Your task to perform on an android device: open app "Spotify: Music and Podcasts" (install if not already installed) Image 0: 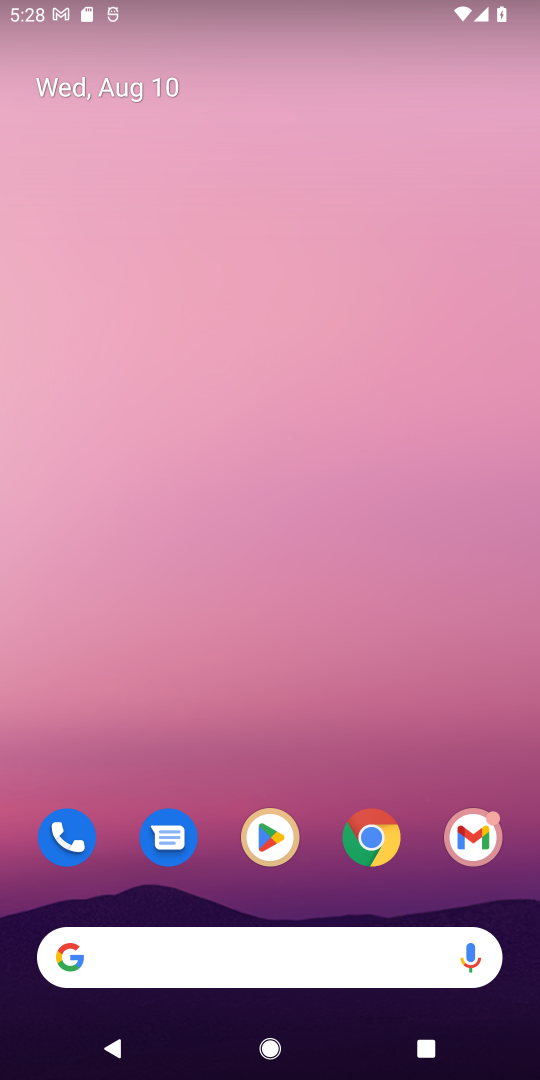
Step 0: click (269, 827)
Your task to perform on an android device: open app "Spotify: Music and Podcasts" (install if not already installed) Image 1: 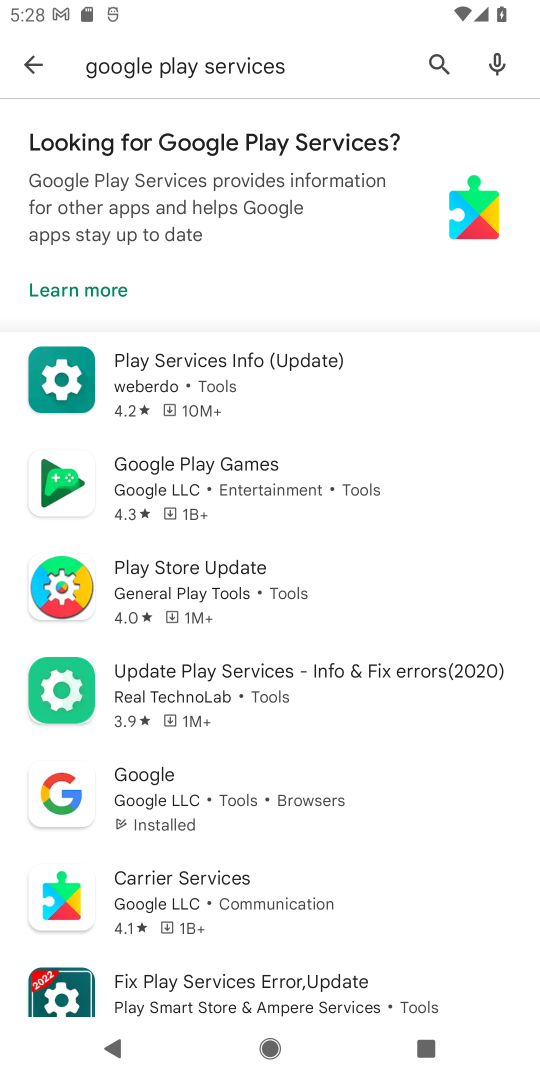
Step 1: click (441, 60)
Your task to perform on an android device: open app "Spotify: Music and Podcasts" (install if not already installed) Image 2: 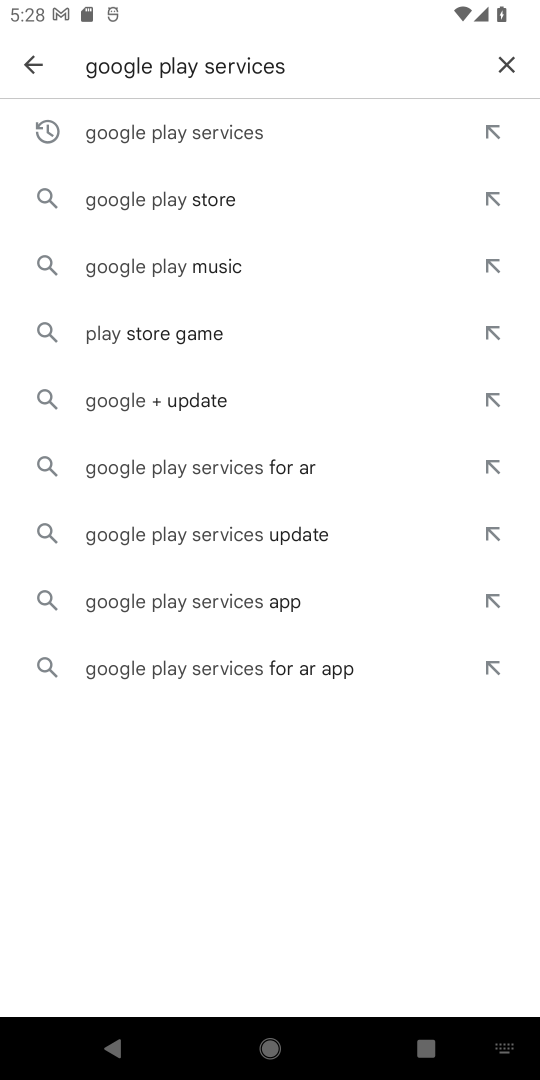
Step 2: click (516, 72)
Your task to perform on an android device: open app "Spotify: Music and Podcasts" (install if not already installed) Image 3: 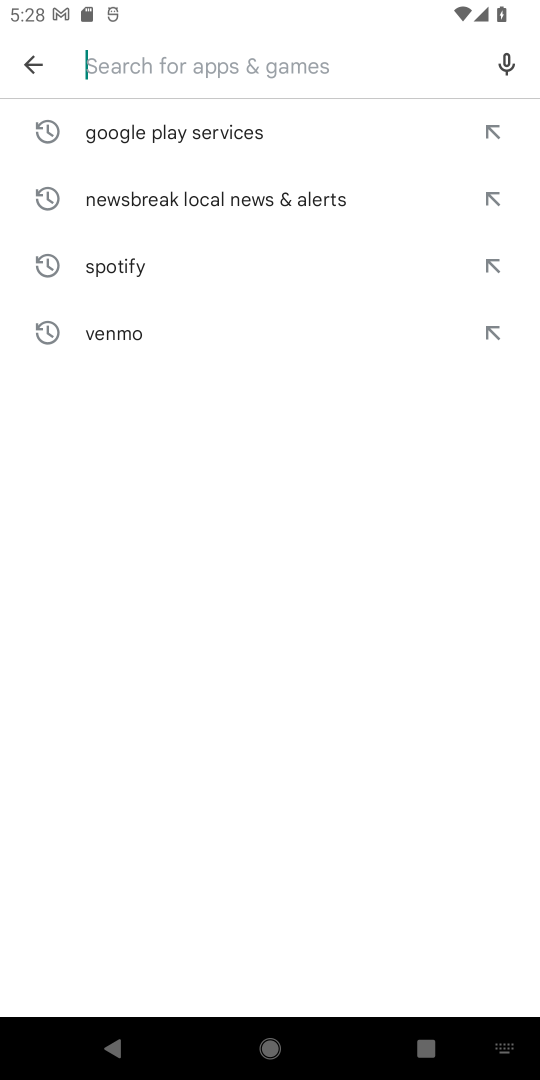
Step 3: type "Spotify: Music and Podcasts"
Your task to perform on an android device: open app "Spotify: Music and Podcasts" (install if not already installed) Image 4: 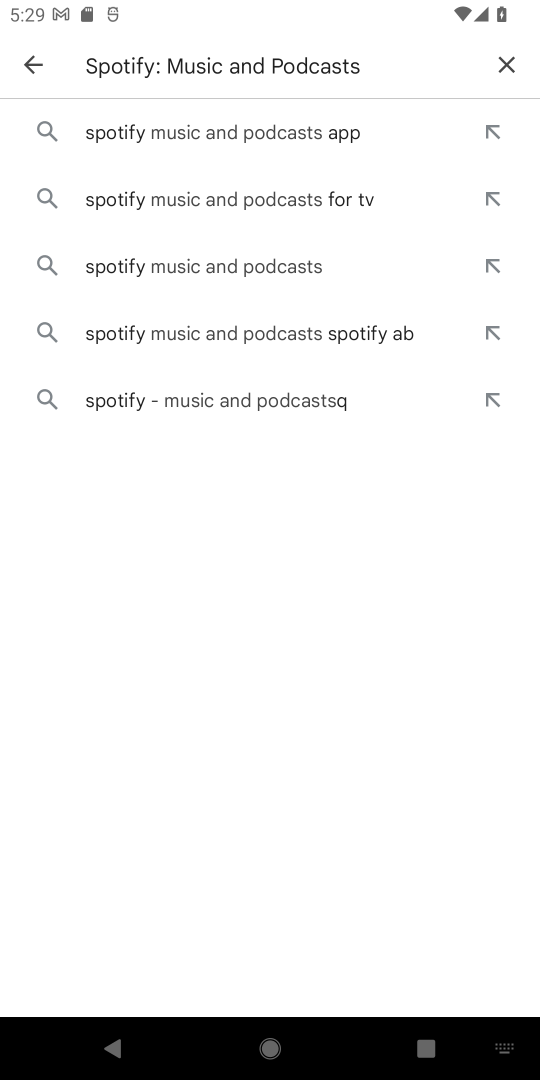
Step 4: click (239, 131)
Your task to perform on an android device: open app "Spotify: Music and Podcasts" (install if not already installed) Image 5: 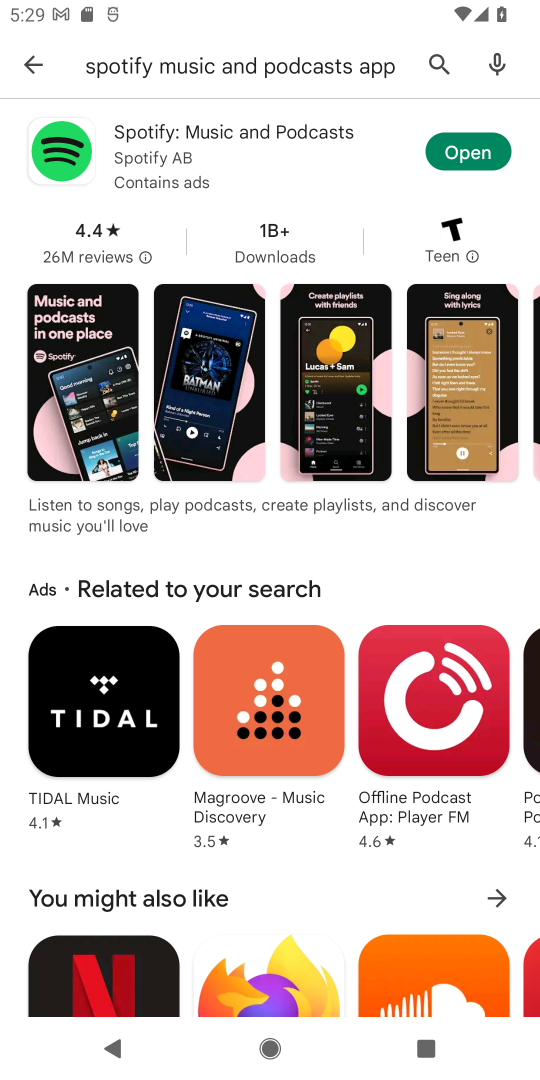
Step 5: click (467, 158)
Your task to perform on an android device: open app "Spotify: Music and Podcasts" (install if not already installed) Image 6: 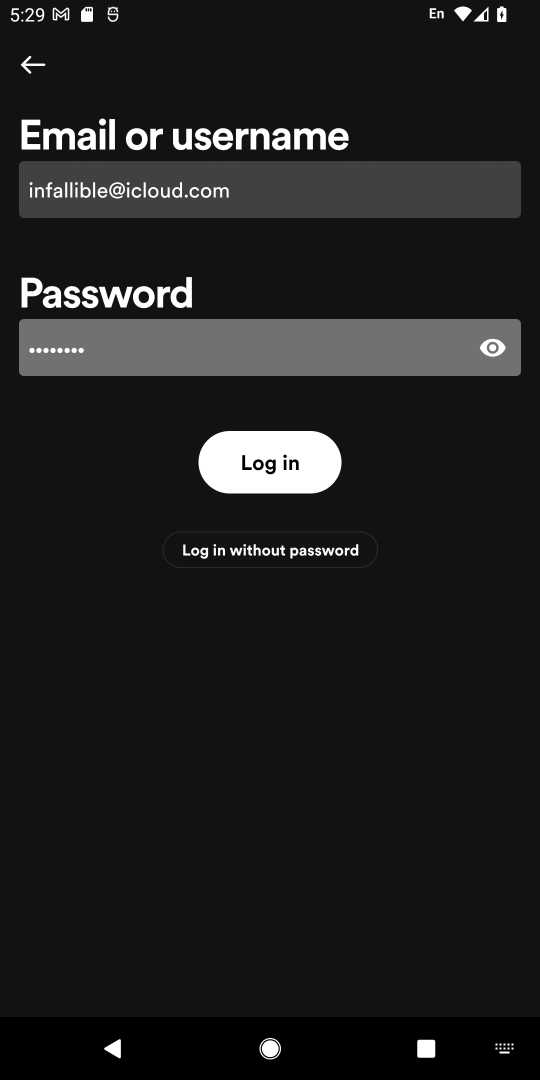
Step 6: task complete